Your task to perform on an android device: open a new tab in the chrome app Image 0: 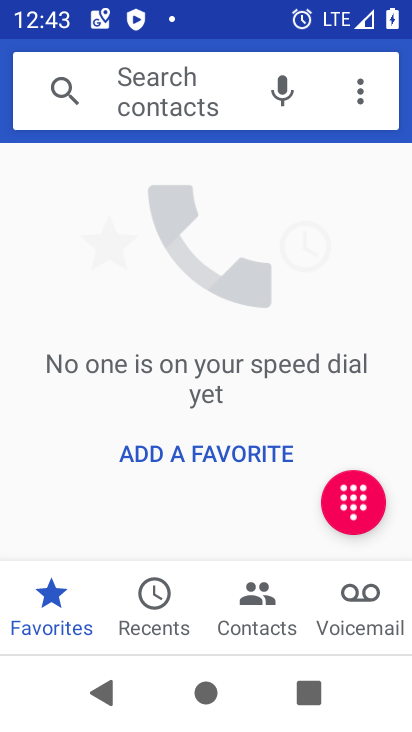
Step 0: press home button
Your task to perform on an android device: open a new tab in the chrome app Image 1: 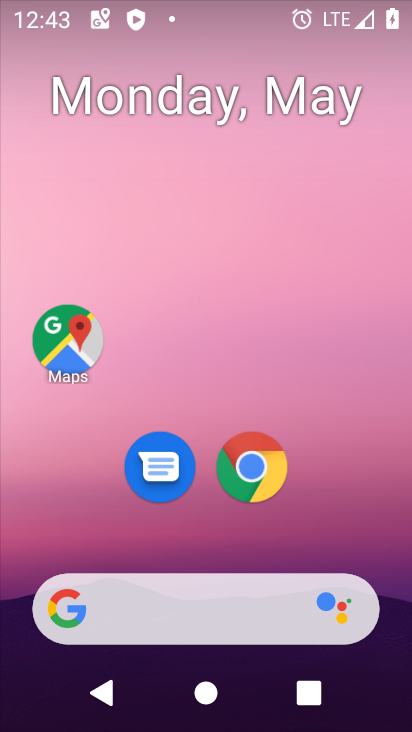
Step 1: click (262, 472)
Your task to perform on an android device: open a new tab in the chrome app Image 2: 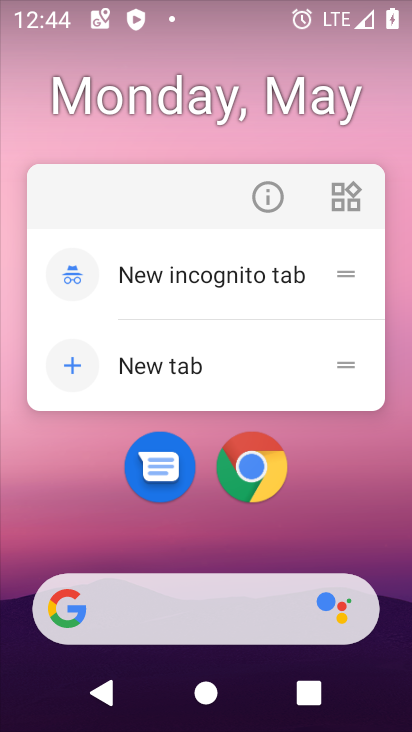
Step 2: click (267, 472)
Your task to perform on an android device: open a new tab in the chrome app Image 3: 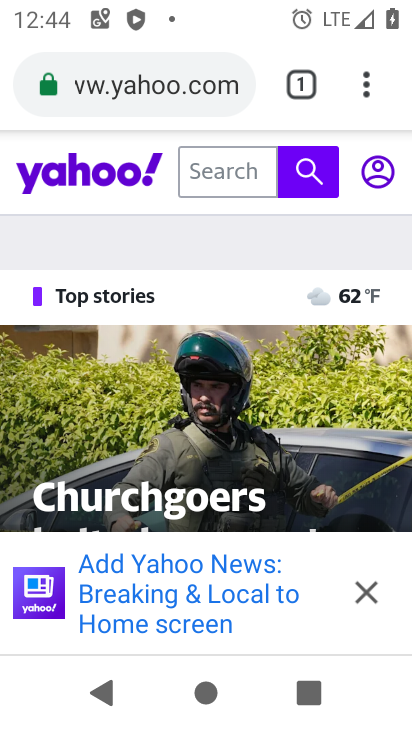
Step 3: click (365, 79)
Your task to perform on an android device: open a new tab in the chrome app Image 4: 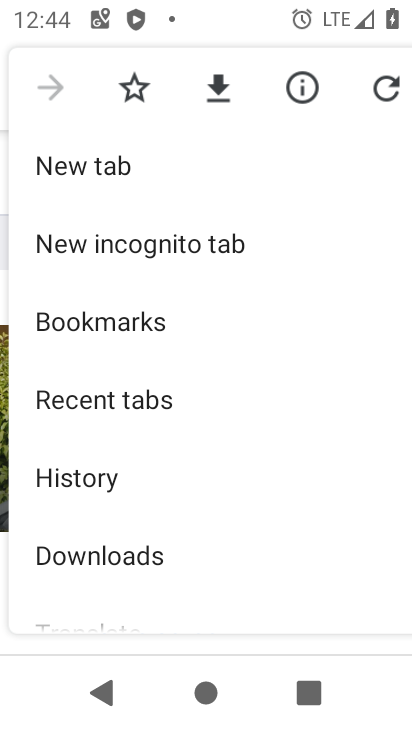
Step 4: click (120, 163)
Your task to perform on an android device: open a new tab in the chrome app Image 5: 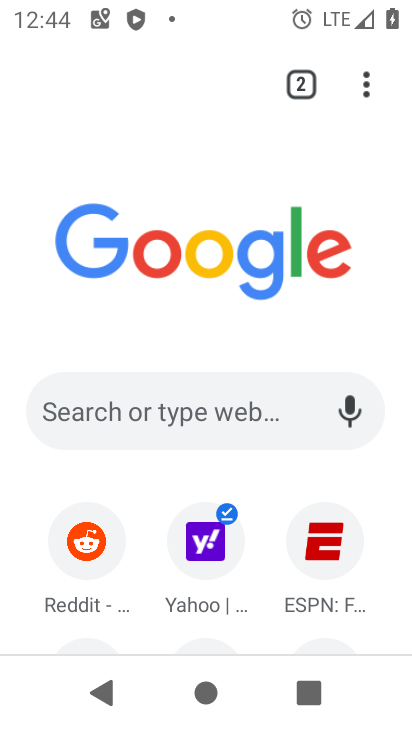
Step 5: task complete